Your task to perform on an android device: Go to accessibility settings Image 0: 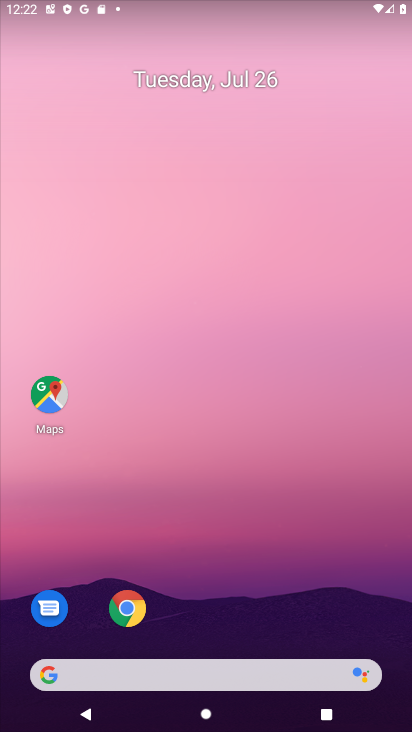
Step 0: drag from (209, 622) to (296, 30)
Your task to perform on an android device: Go to accessibility settings Image 1: 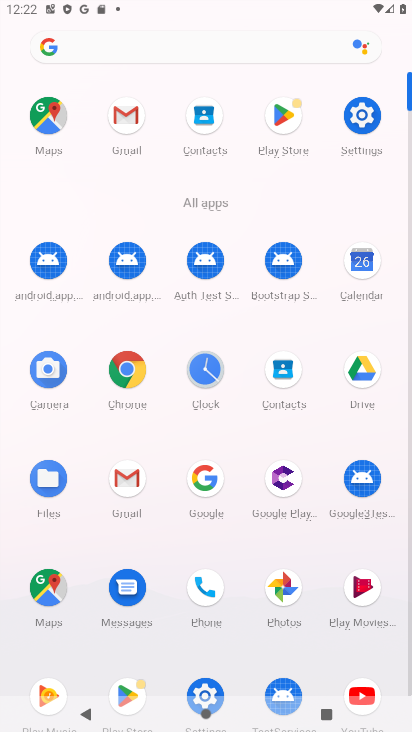
Step 1: click (357, 138)
Your task to perform on an android device: Go to accessibility settings Image 2: 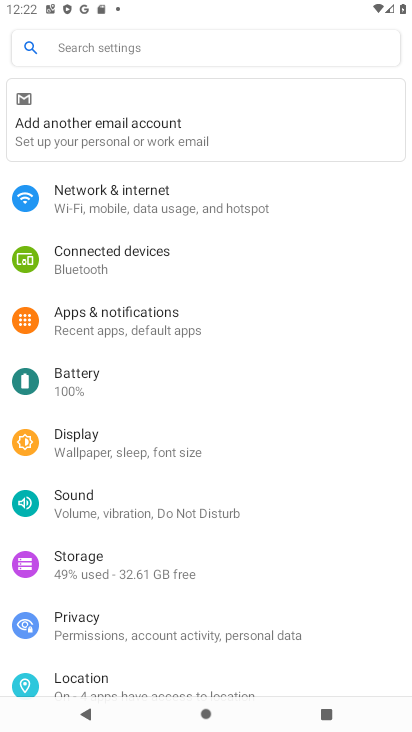
Step 2: drag from (132, 658) to (149, 213)
Your task to perform on an android device: Go to accessibility settings Image 3: 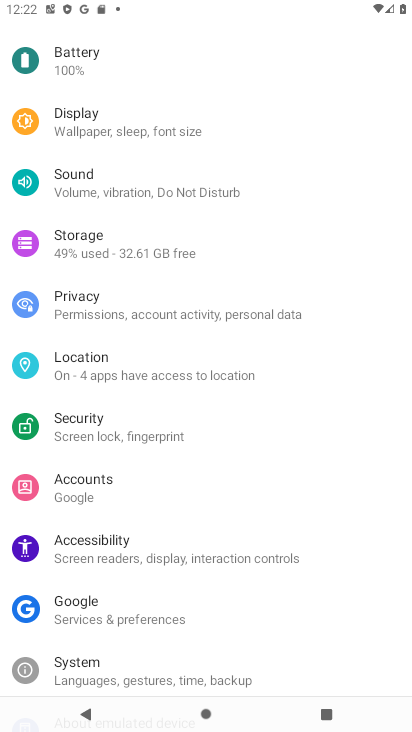
Step 3: drag from (82, 662) to (105, 194)
Your task to perform on an android device: Go to accessibility settings Image 4: 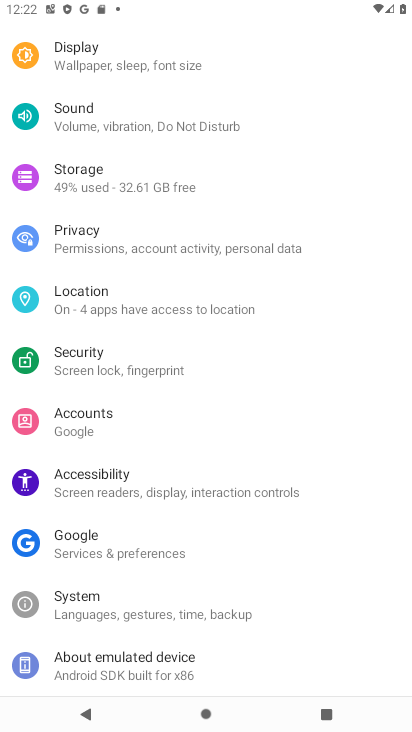
Step 4: click (133, 473)
Your task to perform on an android device: Go to accessibility settings Image 5: 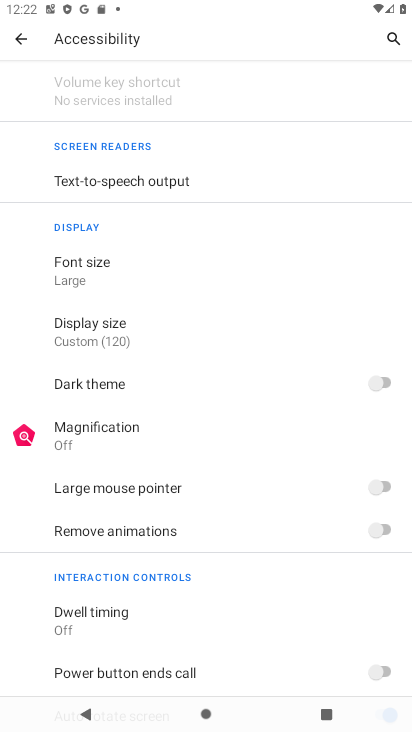
Step 5: task complete